Your task to perform on an android device: What is the recent news? Image 0: 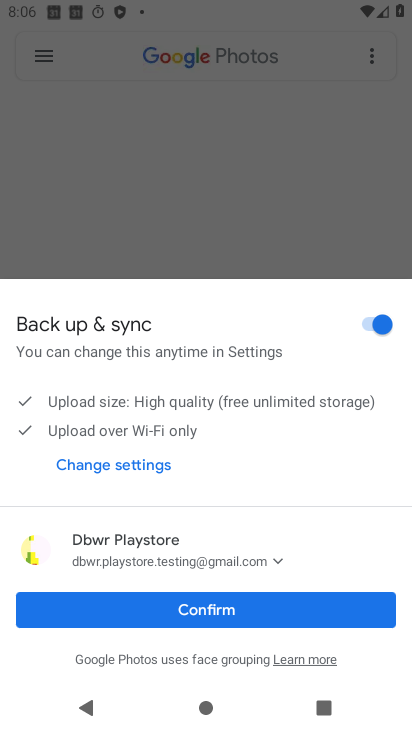
Step 0: press home button
Your task to perform on an android device: What is the recent news? Image 1: 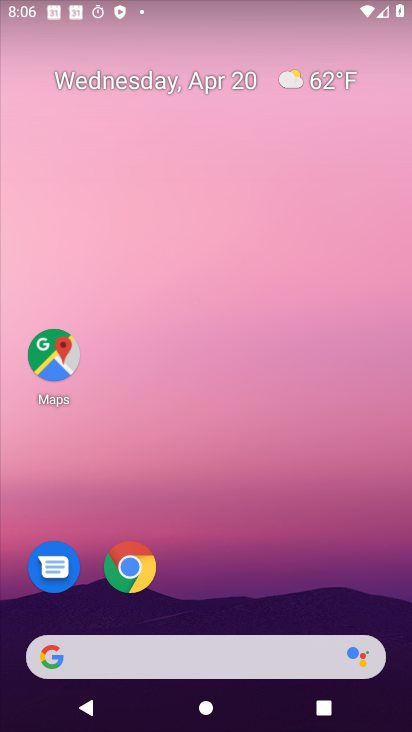
Step 1: task complete